Your task to perform on an android device: Show me popular games on the Play Store Image 0: 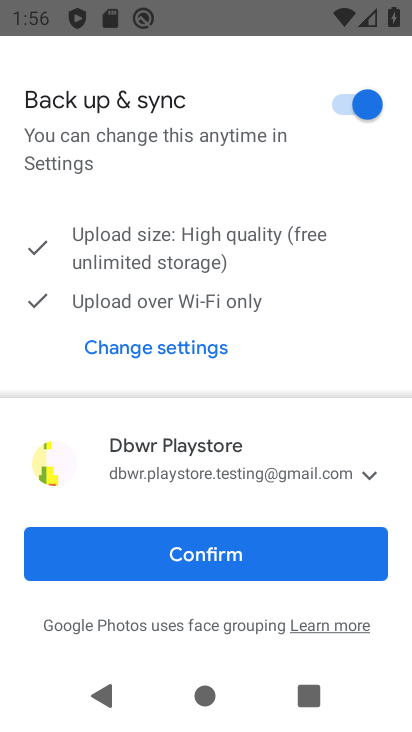
Step 0: press home button
Your task to perform on an android device: Show me popular games on the Play Store Image 1: 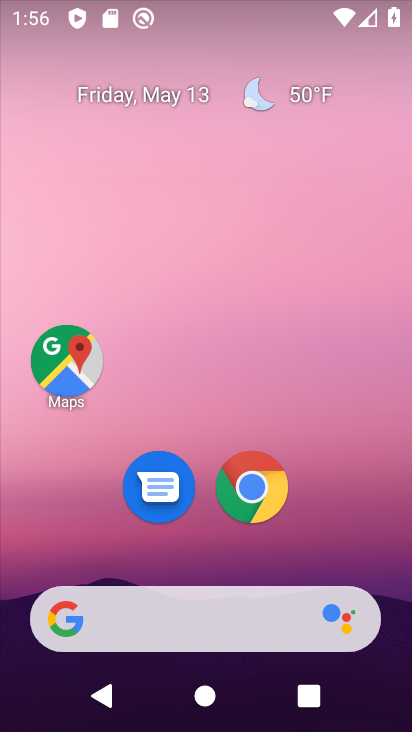
Step 1: drag from (83, 584) to (190, 105)
Your task to perform on an android device: Show me popular games on the Play Store Image 2: 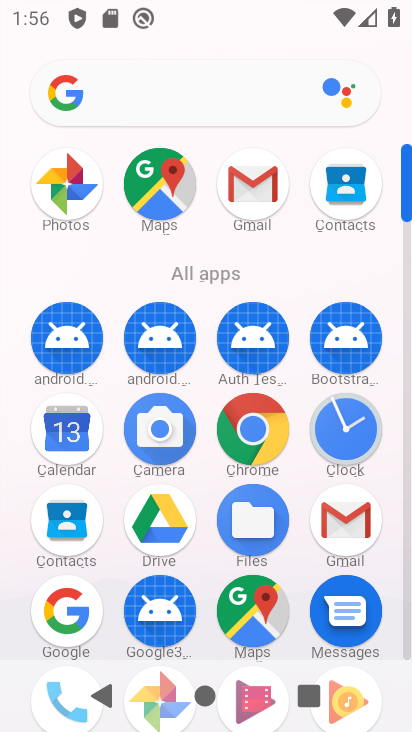
Step 2: drag from (87, 601) to (153, 361)
Your task to perform on an android device: Show me popular games on the Play Store Image 3: 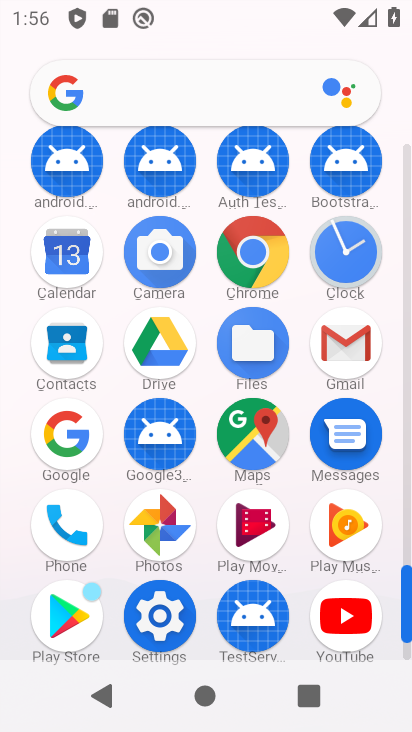
Step 3: click (81, 593)
Your task to perform on an android device: Show me popular games on the Play Store Image 4: 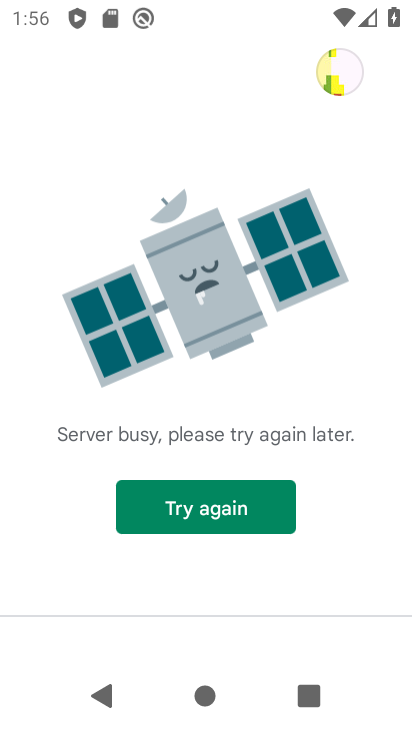
Step 4: task complete